Your task to perform on an android device: Open the stopwatch Image 0: 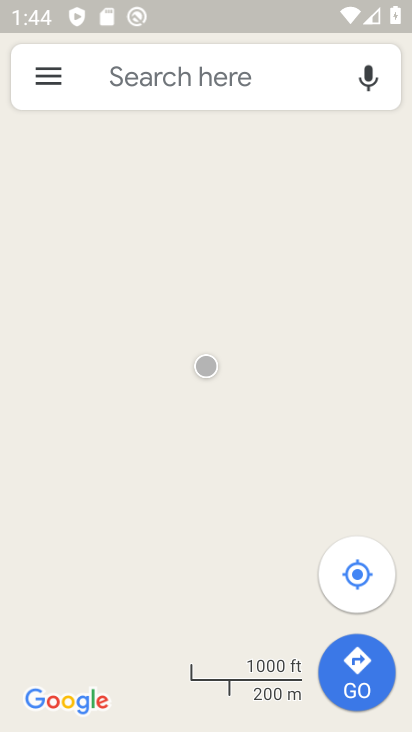
Step 0: press home button
Your task to perform on an android device: Open the stopwatch Image 1: 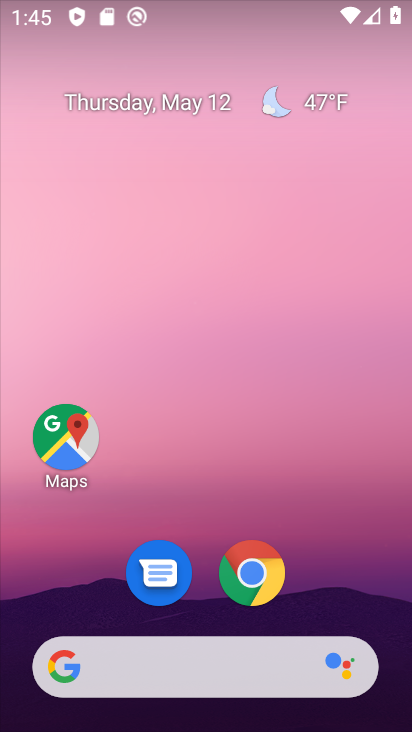
Step 1: drag from (202, 624) to (217, 76)
Your task to perform on an android device: Open the stopwatch Image 2: 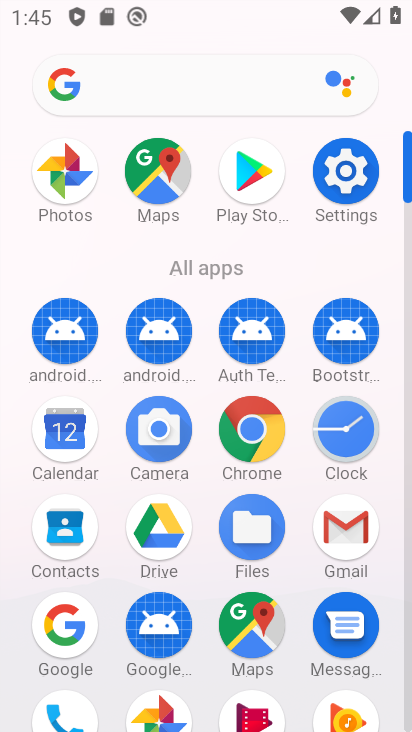
Step 2: click (346, 446)
Your task to perform on an android device: Open the stopwatch Image 3: 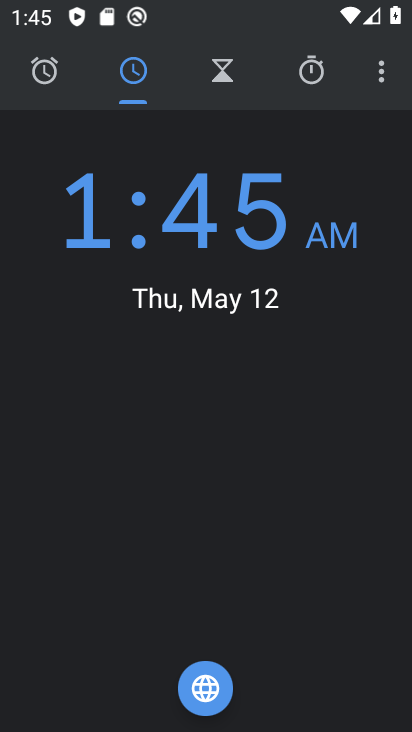
Step 3: click (326, 76)
Your task to perform on an android device: Open the stopwatch Image 4: 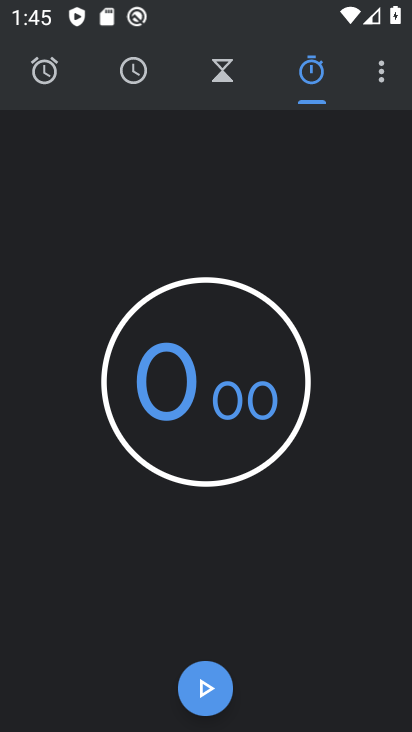
Step 4: task complete